Your task to perform on an android device: add a contact in the contacts app Image 0: 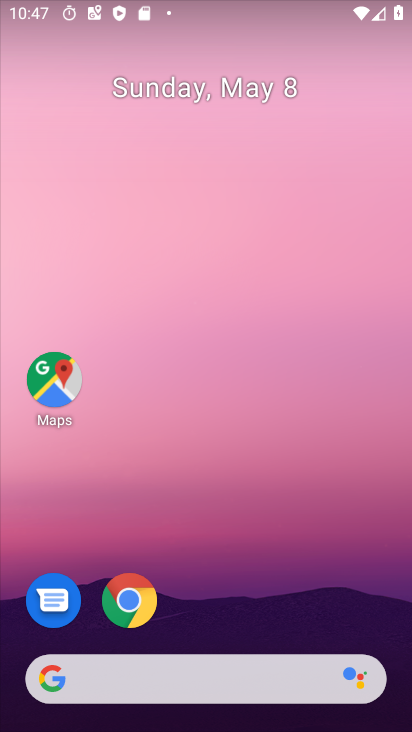
Step 0: drag from (28, 564) to (200, 187)
Your task to perform on an android device: add a contact in the contacts app Image 1: 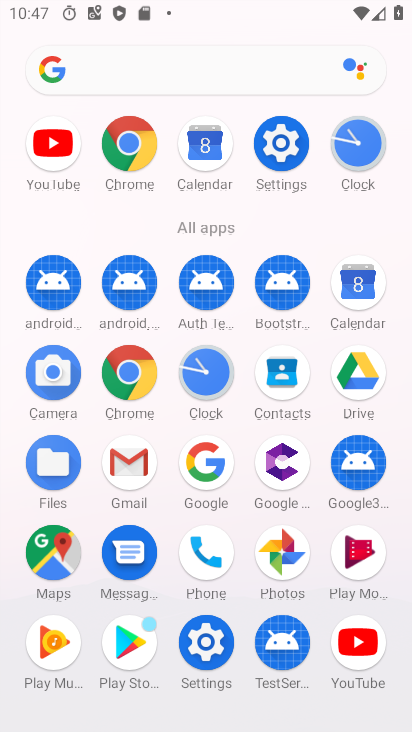
Step 1: click (197, 561)
Your task to perform on an android device: add a contact in the contacts app Image 2: 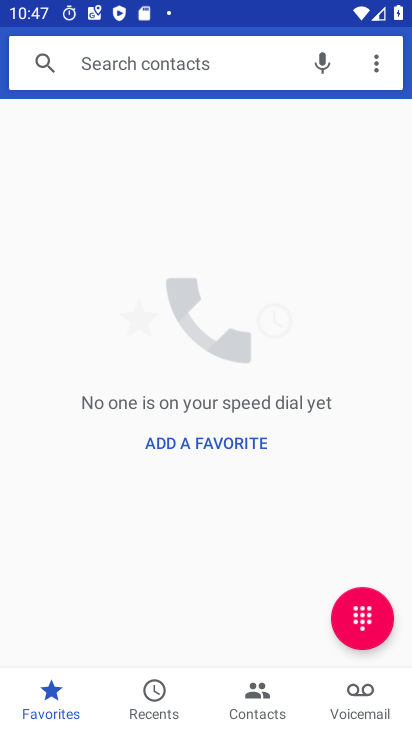
Step 2: click (333, 618)
Your task to perform on an android device: add a contact in the contacts app Image 3: 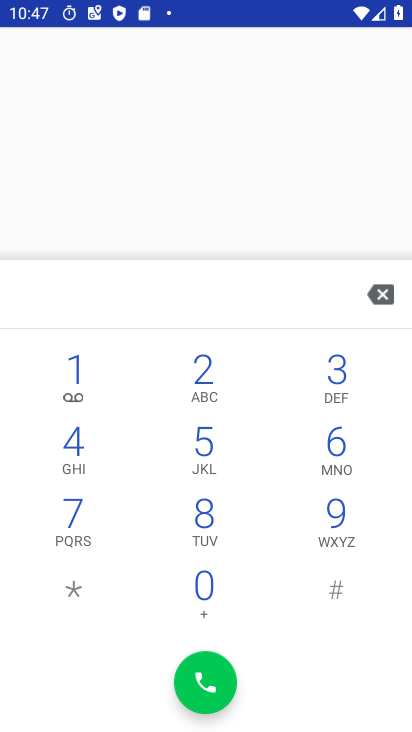
Step 3: press home button
Your task to perform on an android device: add a contact in the contacts app Image 4: 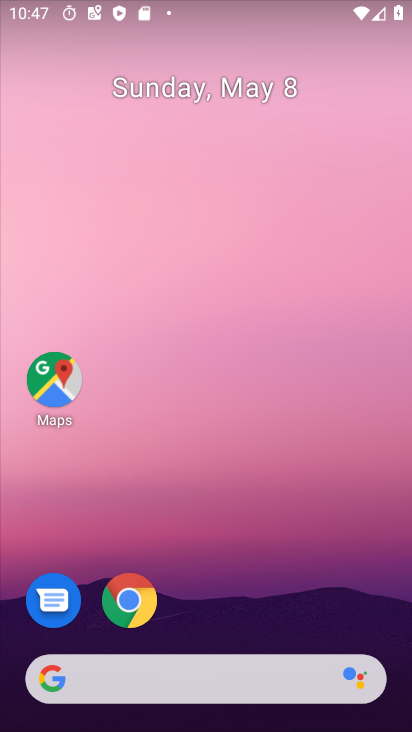
Step 4: drag from (46, 543) to (203, 116)
Your task to perform on an android device: add a contact in the contacts app Image 5: 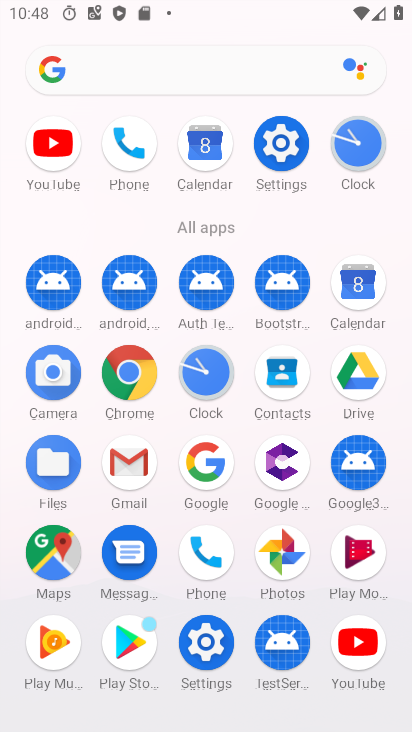
Step 5: click (202, 543)
Your task to perform on an android device: add a contact in the contacts app Image 6: 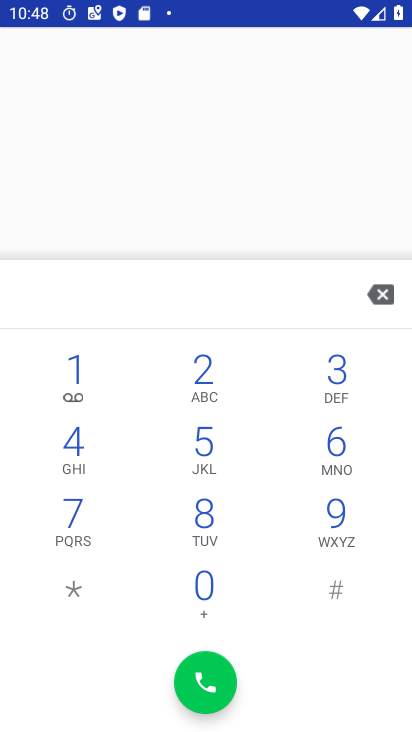
Step 6: press back button
Your task to perform on an android device: add a contact in the contacts app Image 7: 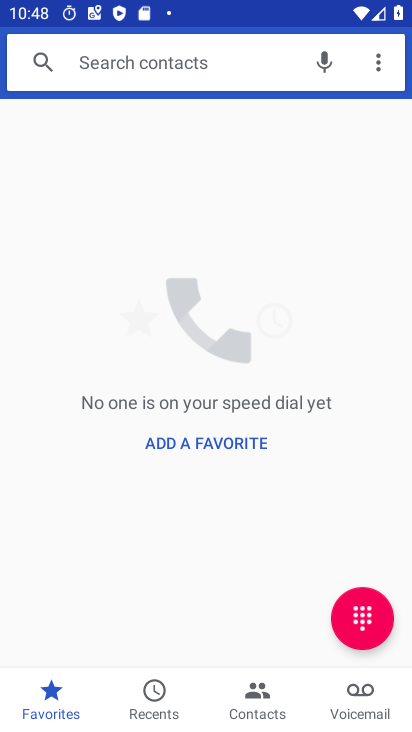
Step 7: click (251, 709)
Your task to perform on an android device: add a contact in the contacts app Image 8: 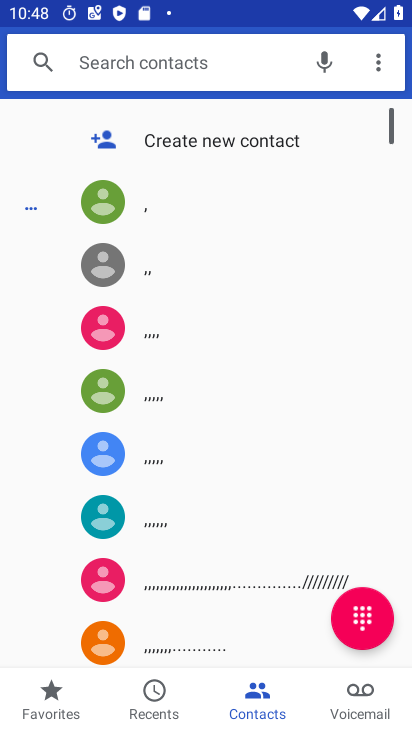
Step 8: click (223, 137)
Your task to perform on an android device: add a contact in the contacts app Image 9: 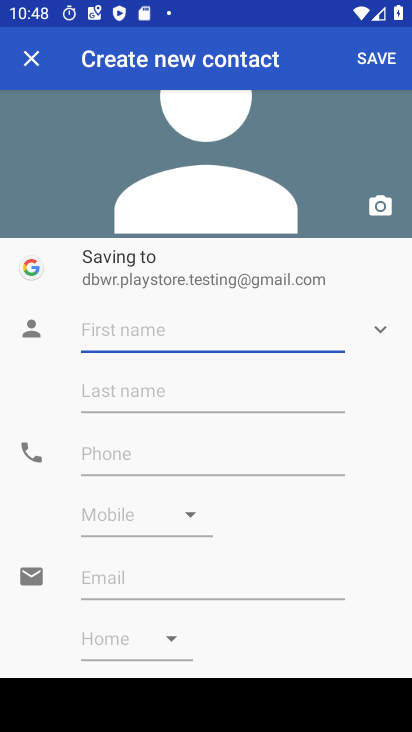
Step 9: click (130, 325)
Your task to perform on an android device: add a contact in the contacts app Image 10: 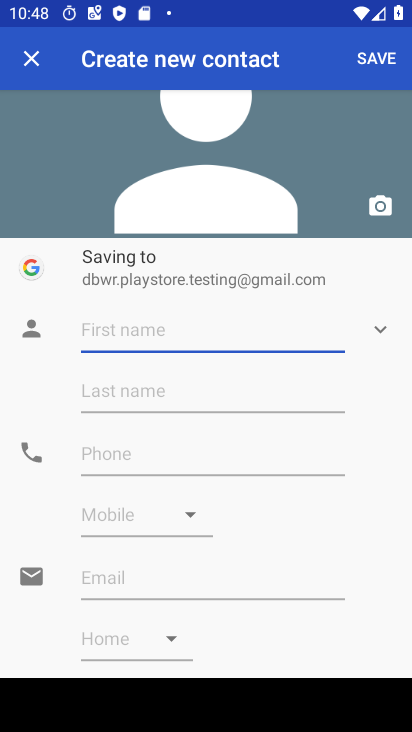
Step 10: click (164, 529)
Your task to perform on an android device: add a contact in the contacts app Image 11: 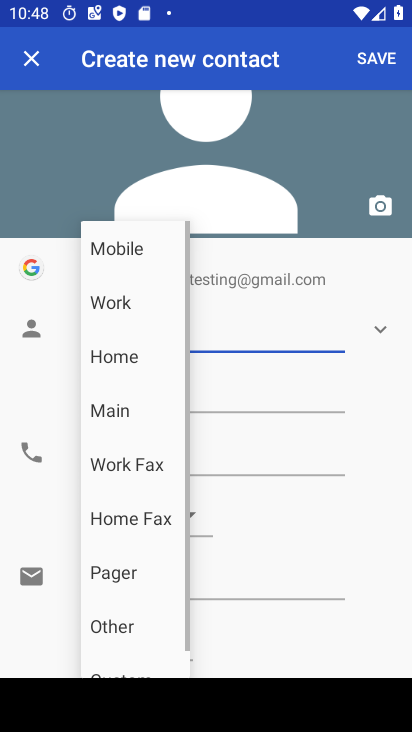
Step 11: click (159, 446)
Your task to perform on an android device: add a contact in the contacts app Image 12: 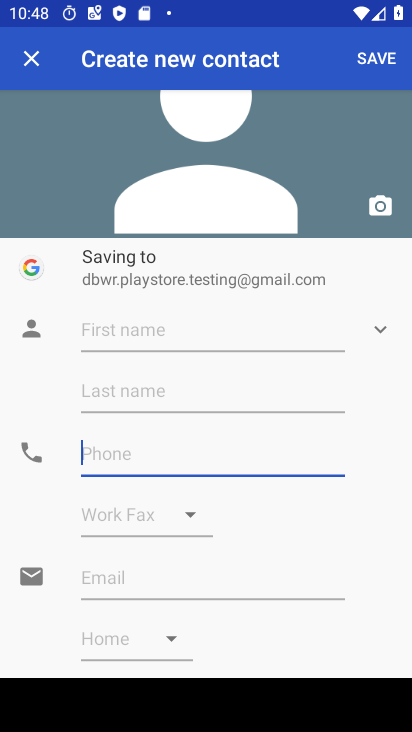
Step 12: click (213, 513)
Your task to perform on an android device: add a contact in the contacts app Image 13: 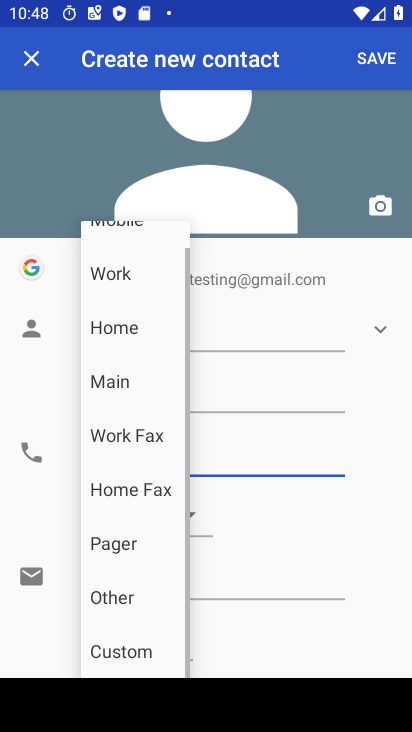
Step 13: drag from (125, 293) to (98, 592)
Your task to perform on an android device: add a contact in the contacts app Image 14: 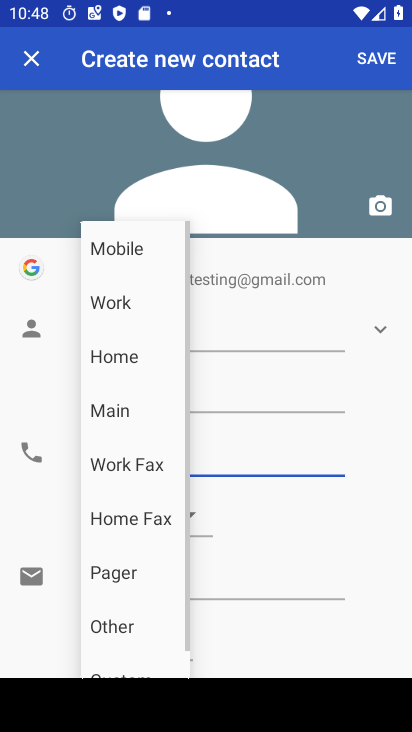
Step 14: click (108, 264)
Your task to perform on an android device: add a contact in the contacts app Image 15: 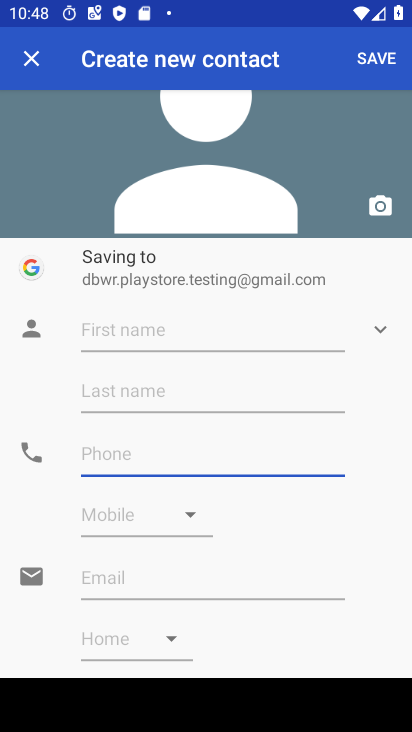
Step 15: click (178, 449)
Your task to perform on an android device: add a contact in the contacts app Image 16: 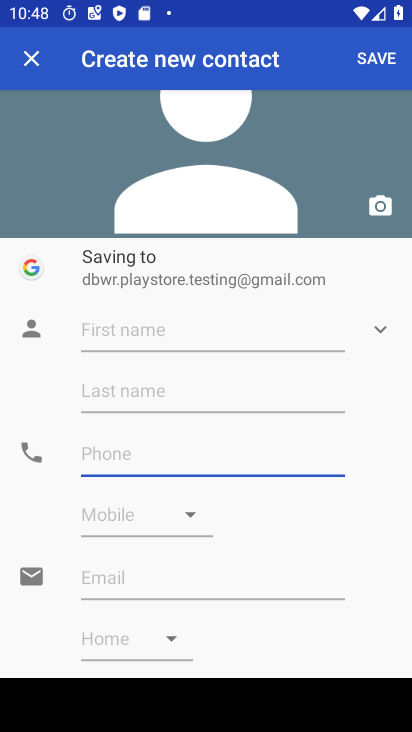
Step 16: type "987532"
Your task to perform on an android device: add a contact in the contacts app Image 17: 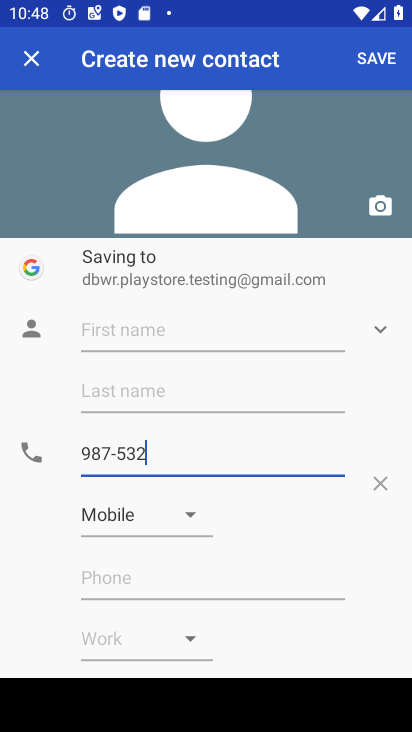
Step 17: click (379, 69)
Your task to perform on an android device: add a contact in the contacts app Image 18: 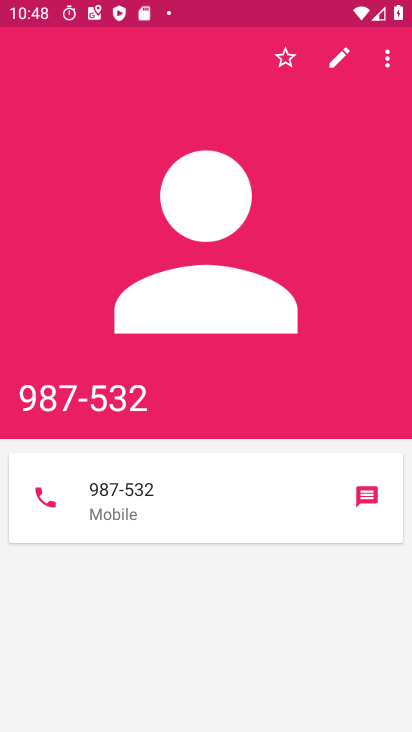
Step 18: task complete